Your task to perform on an android device: What's the weather? Image 0: 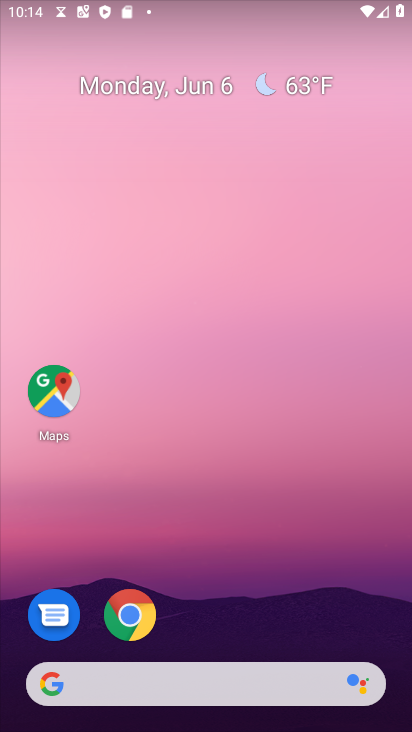
Step 0: press home button
Your task to perform on an android device: What's the weather? Image 1: 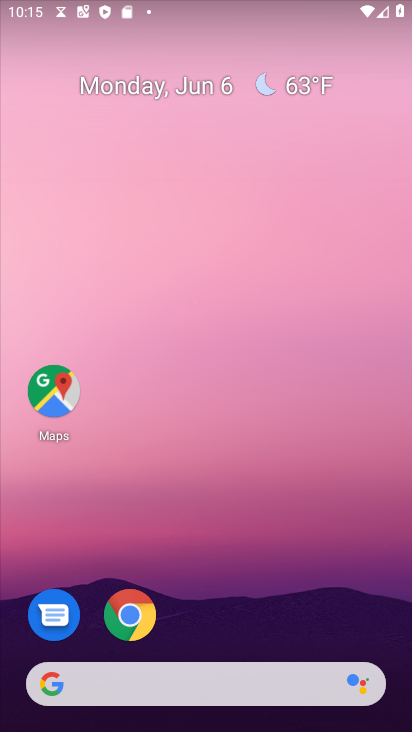
Step 1: click (299, 77)
Your task to perform on an android device: What's the weather? Image 2: 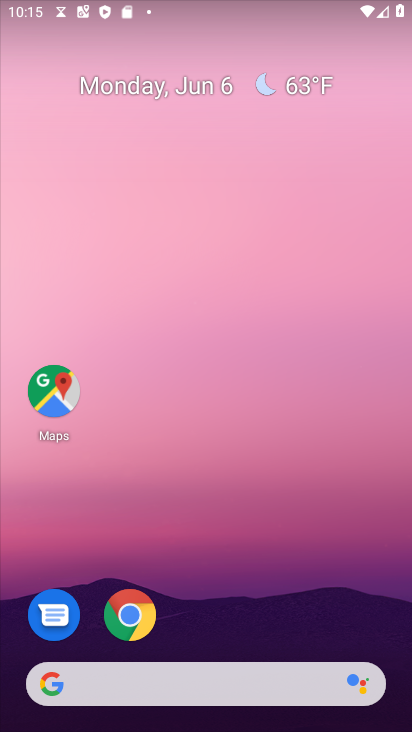
Step 2: click (301, 88)
Your task to perform on an android device: What's the weather? Image 3: 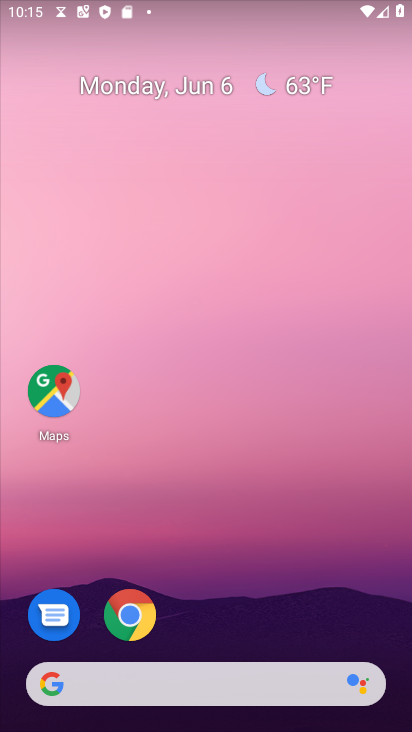
Step 3: drag from (84, 295) to (404, 283)
Your task to perform on an android device: What's the weather? Image 4: 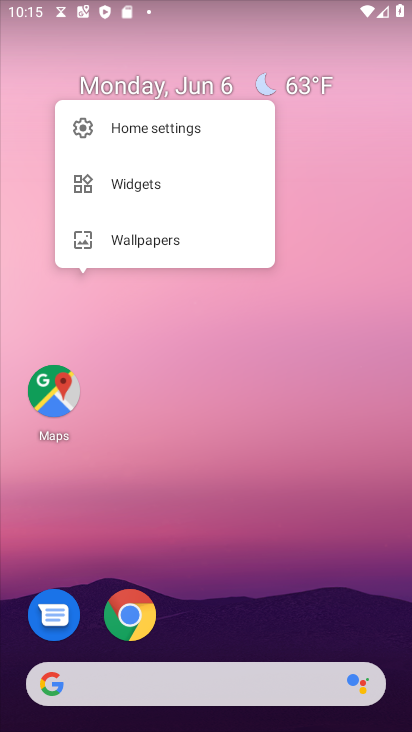
Step 4: drag from (246, 336) to (408, 336)
Your task to perform on an android device: What's the weather? Image 5: 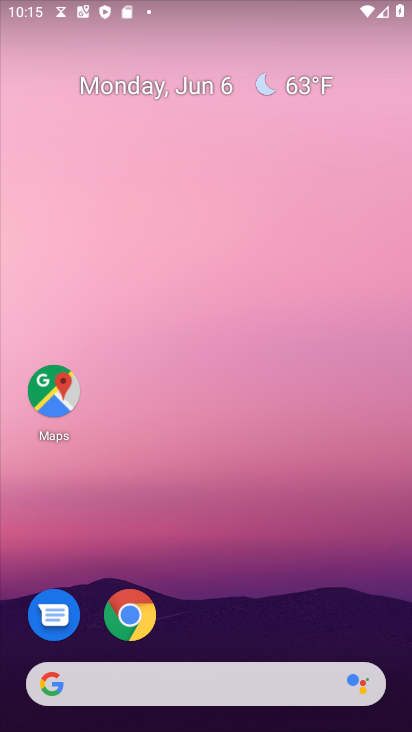
Step 5: drag from (14, 474) to (402, 394)
Your task to perform on an android device: What's the weather? Image 6: 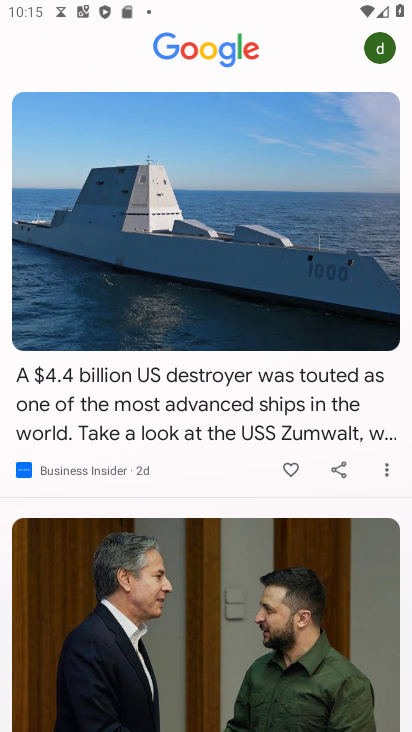
Step 6: press back button
Your task to perform on an android device: What's the weather? Image 7: 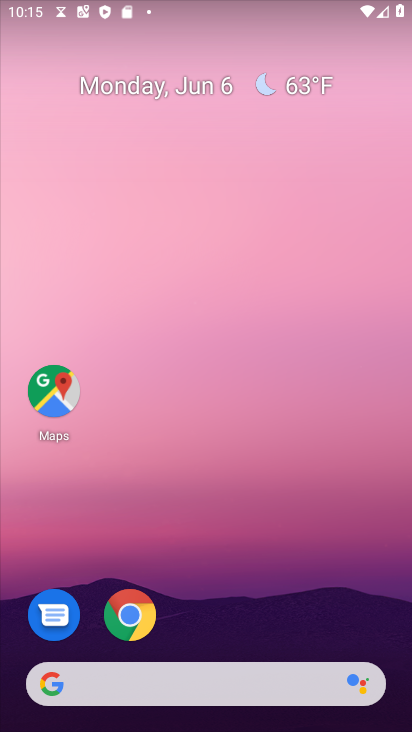
Step 7: click (294, 80)
Your task to perform on an android device: What's the weather? Image 8: 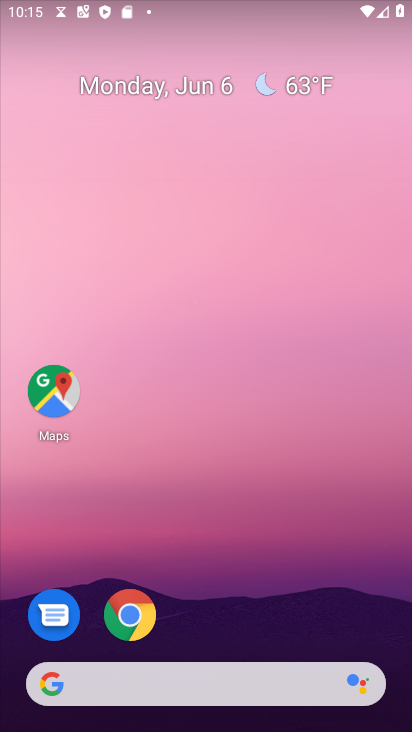
Step 8: click (307, 80)
Your task to perform on an android device: What's the weather? Image 9: 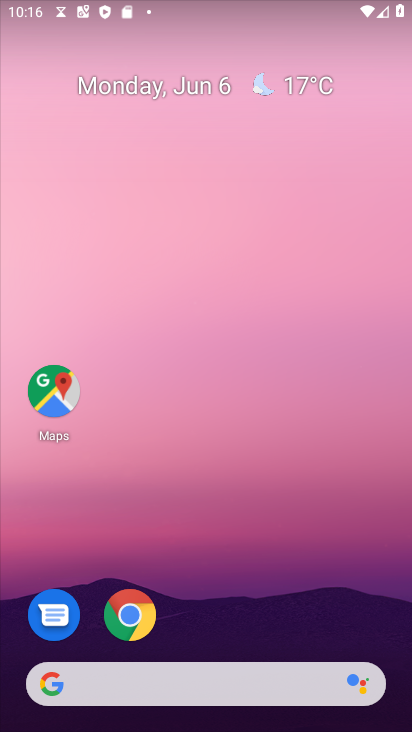
Step 9: click (295, 83)
Your task to perform on an android device: What's the weather? Image 10: 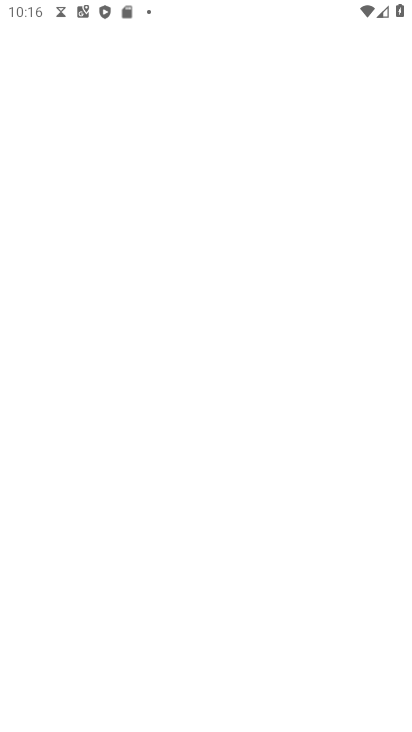
Step 10: click (300, 83)
Your task to perform on an android device: What's the weather? Image 11: 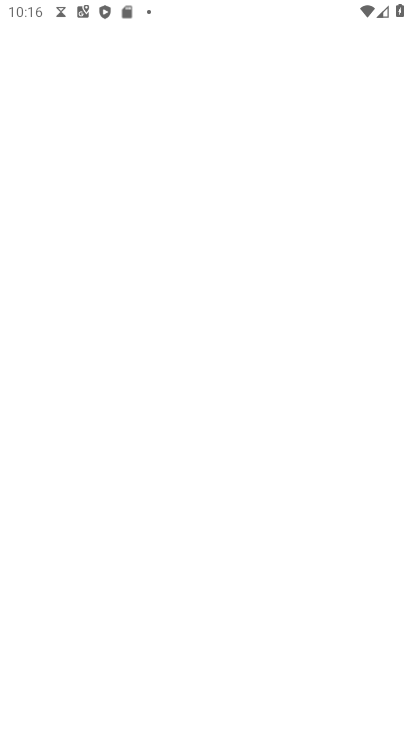
Step 11: click (266, 84)
Your task to perform on an android device: What's the weather? Image 12: 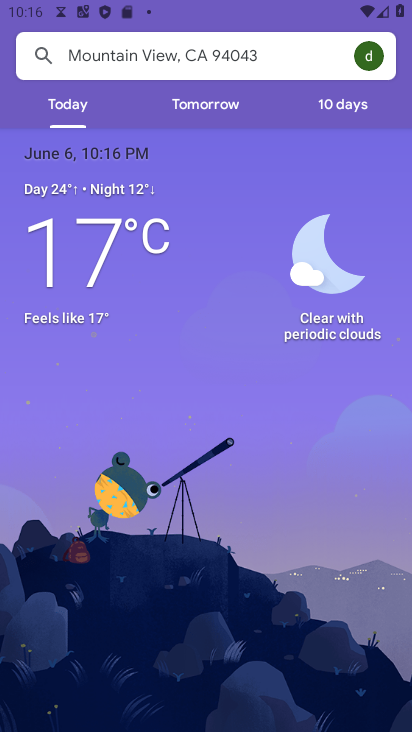
Step 12: task complete